Your task to perform on an android device: open device folders in google photos Image 0: 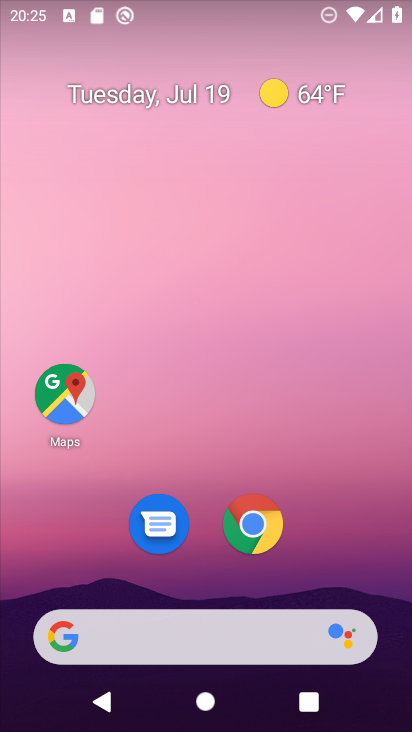
Step 0: drag from (315, 526) to (304, 105)
Your task to perform on an android device: open device folders in google photos Image 1: 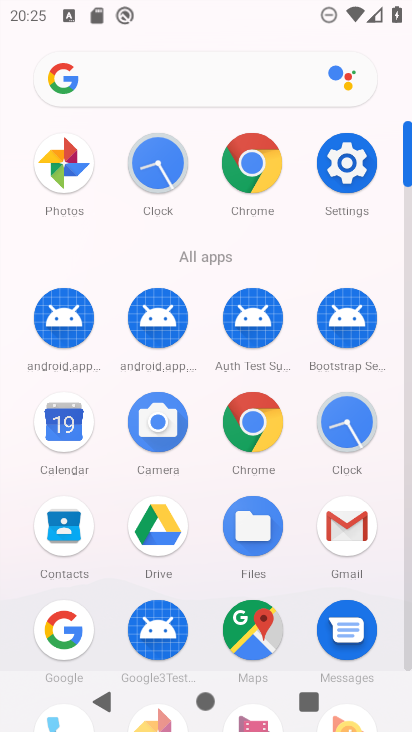
Step 1: click (69, 167)
Your task to perform on an android device: open device folders in google photos Image 2: 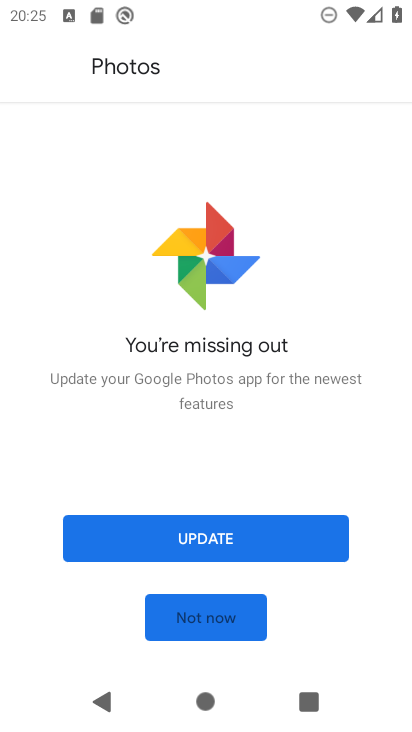
Step 2: click (202, 627)
Your task to perform on an android device: open device folders in google photos Image 3: 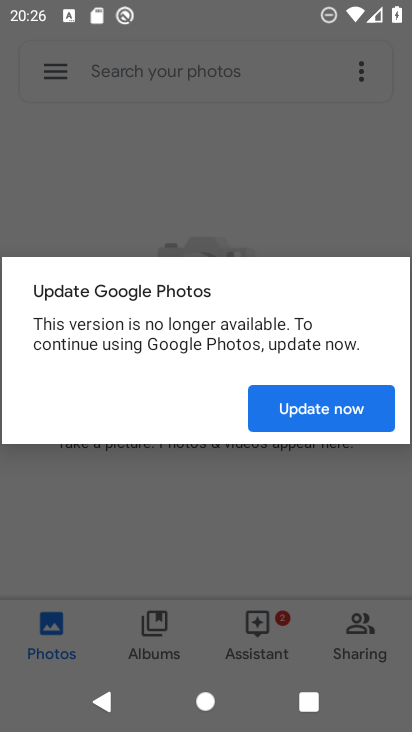
Step 3: click (349, 405)
Your task to perform on an android device: open device folders in google photos Image 4: 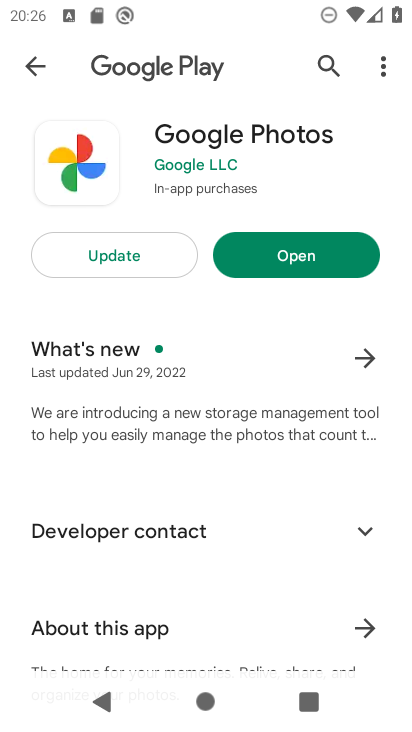
Step 4: click (317, 262)
Your task to perform on an android device: open device folders in google photos Image 5: 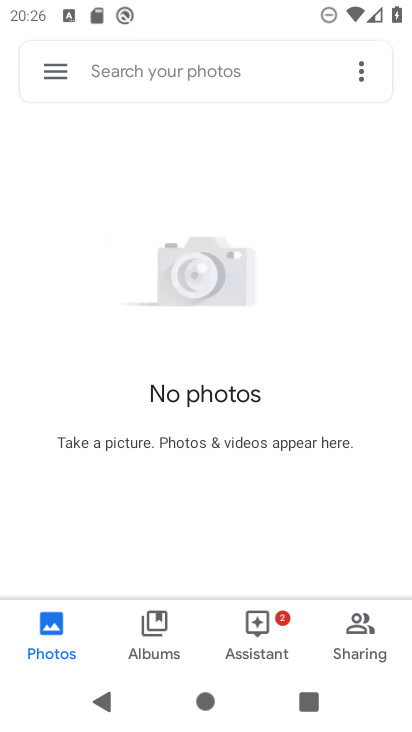
Step 5: click (59, 68)
Your task to perform on an android device: open device folders in google photos Image 6: 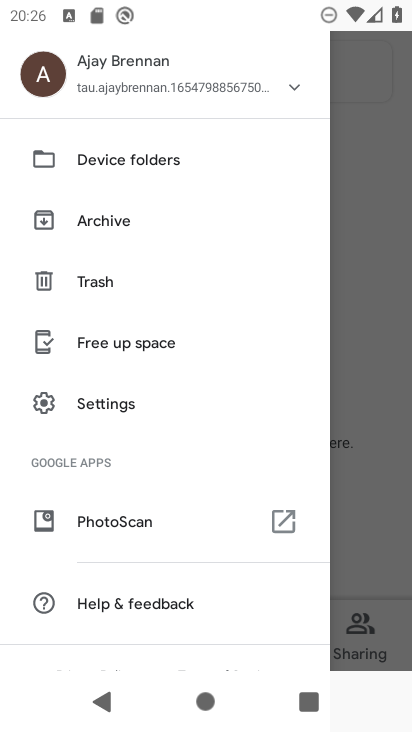
Step 6: click (109, 155)
Your task to perform on an android device: open device folders in google photos Image 7: 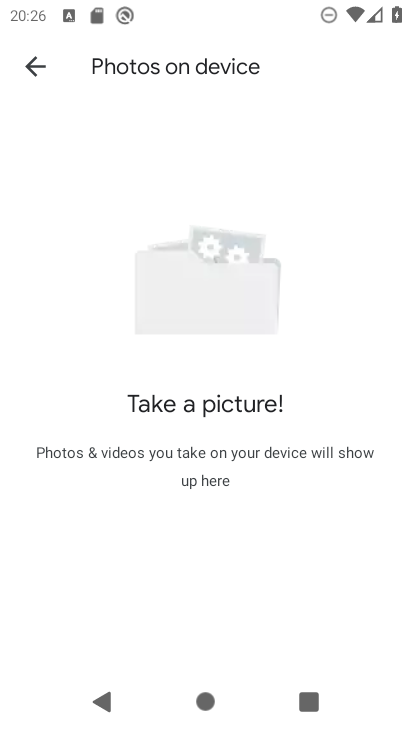
Step 7: task complete